Your task to perform on an android device: Go to Amazon Image 0: 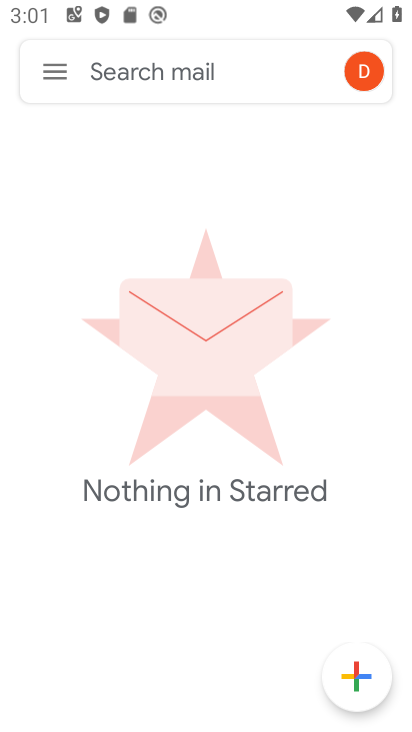
Step 0: drag from (185, 645) to (273, 291)
Your task to perform on an android device: Go to Amazon Image 1: 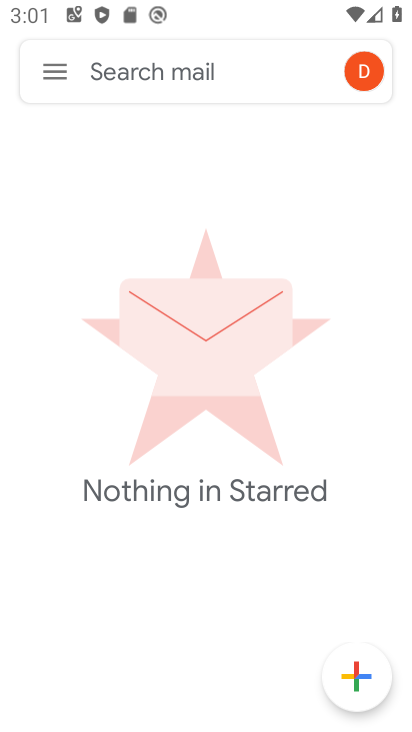
Step 1: press home button
Your task to perform on an android device: Go to Amazon Image 2: 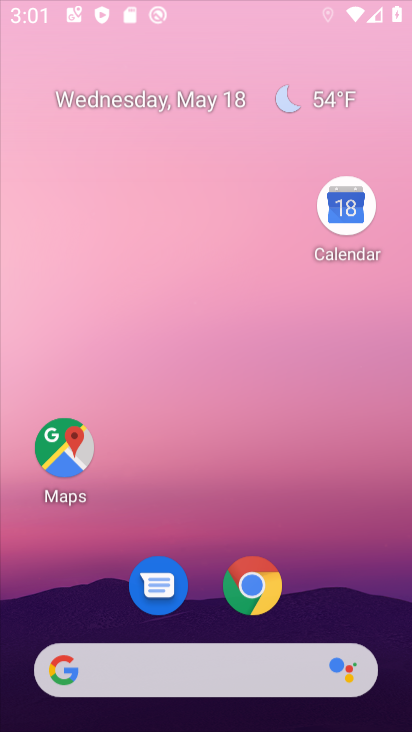
Step 2: drag from (270, 608) to (213, 67)
Your task to perform on an android device: Go to Amazon Image 3: 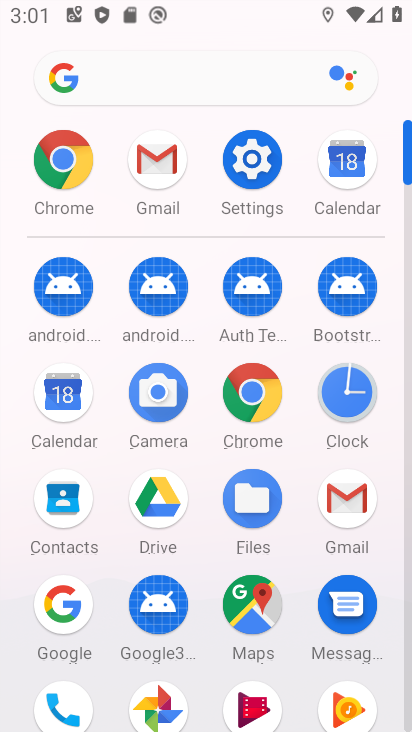
Step 3: click (255, 390)
Your task to perform on an android device: Go to Amazon Image 4: 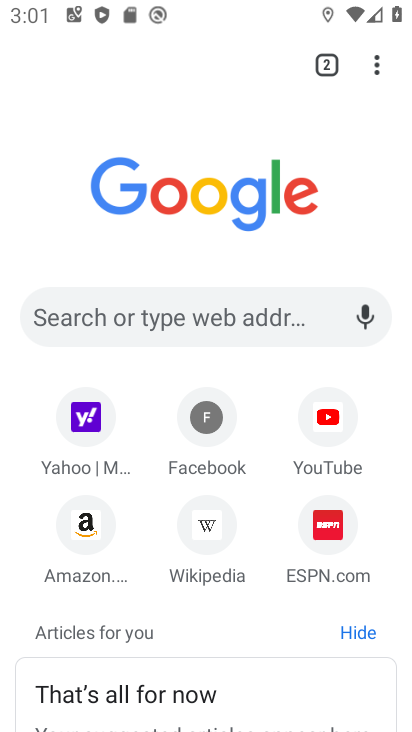
Step 4: drag from (231, 584) to (295, 245)
Your task to perform on an android device: Go to Amazon Image 5: 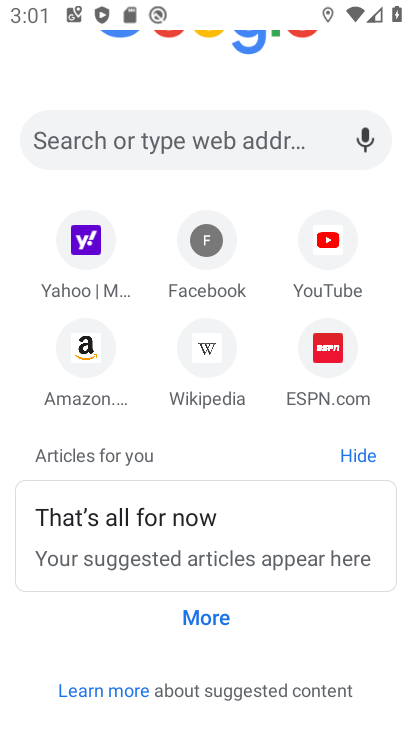
Step 5: click (85, 380)
Your task to perform on an android device: Go to Amazon Image 6: 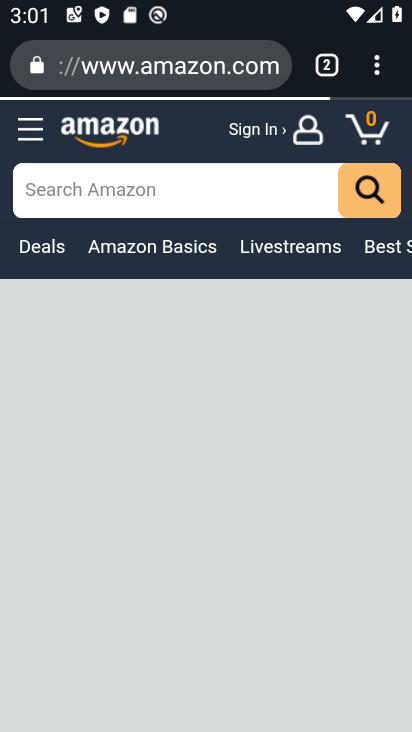
Step 6: task complete